Your task to perform on an android device: open sync settings in chrome Image 0: 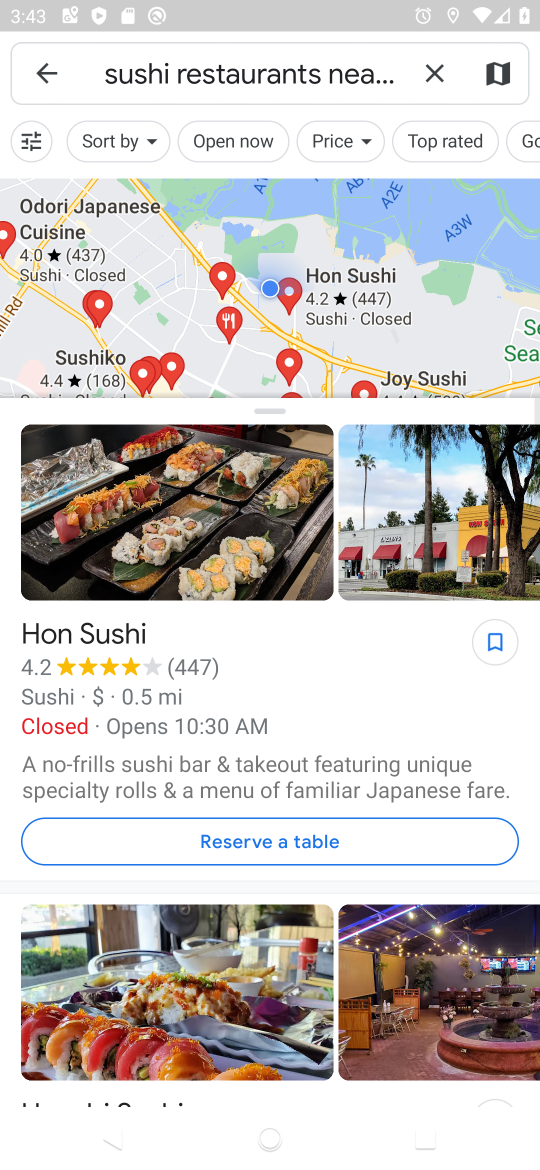
Step 0: press home button
Your task to perform on an android device: open sync settings in chrome Image 1: 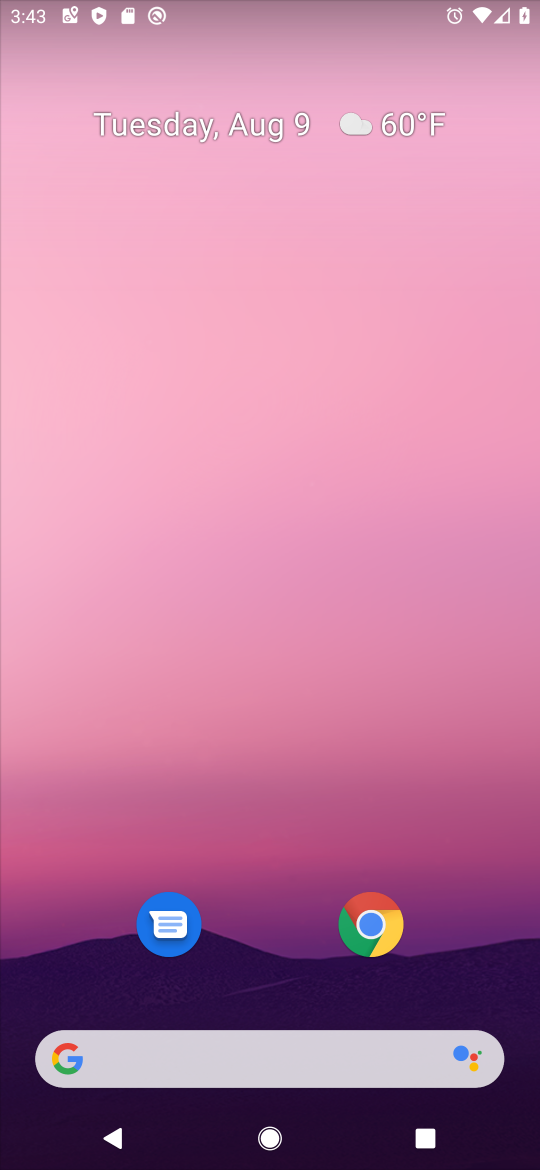
Step 1: click (375, 930)
Your task to perform on an android device: open sync settings in chrome Image 2: 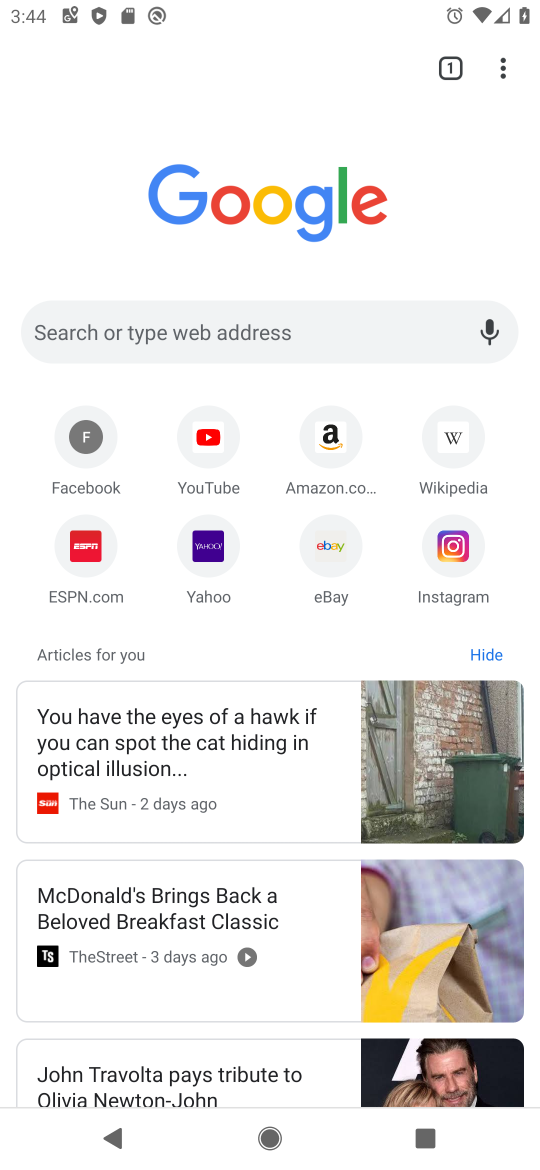
Step 2: click (501, 64)
Your task to perform on an android device: open sync settings in chrome Image 3: 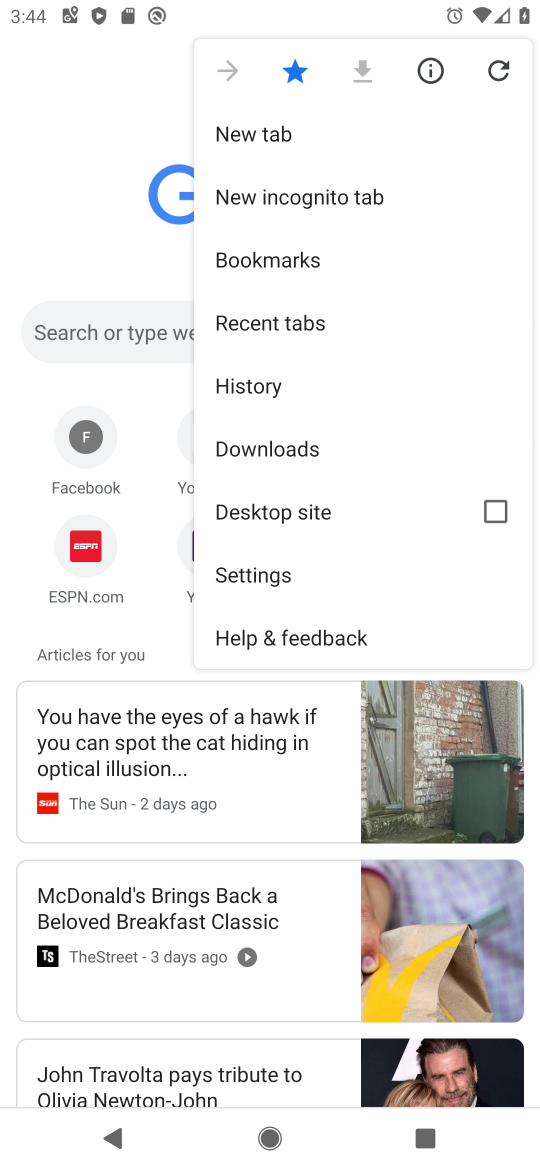
Step 3: click (280, 577)
Your task to perform on an android device: open sync settings in chrome Image 4: 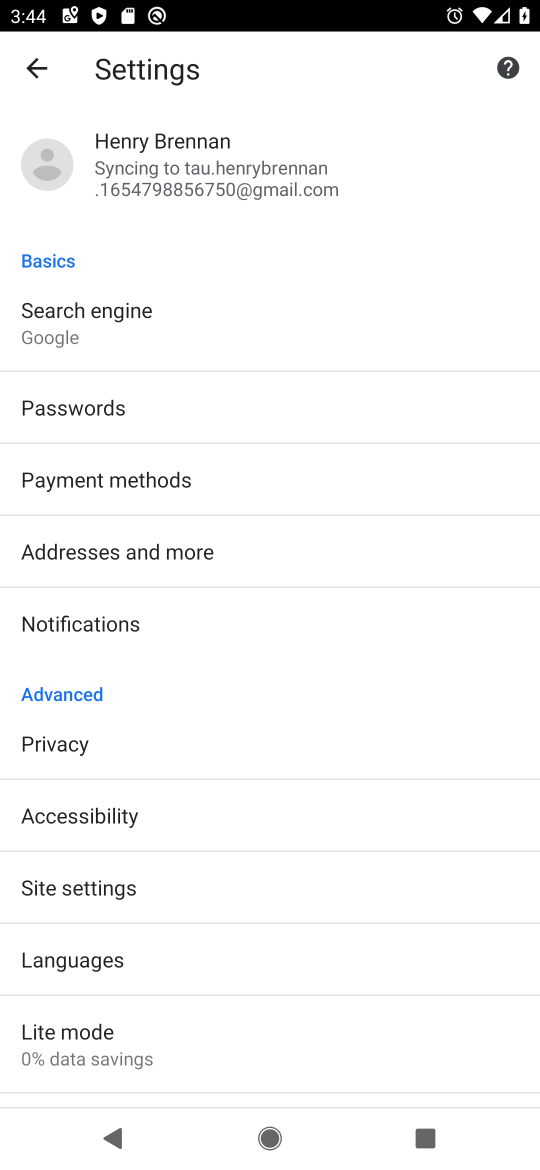
Step 4: click (242, 171)
Your task to perform on an android device: open sync settings in chrome Image 5: 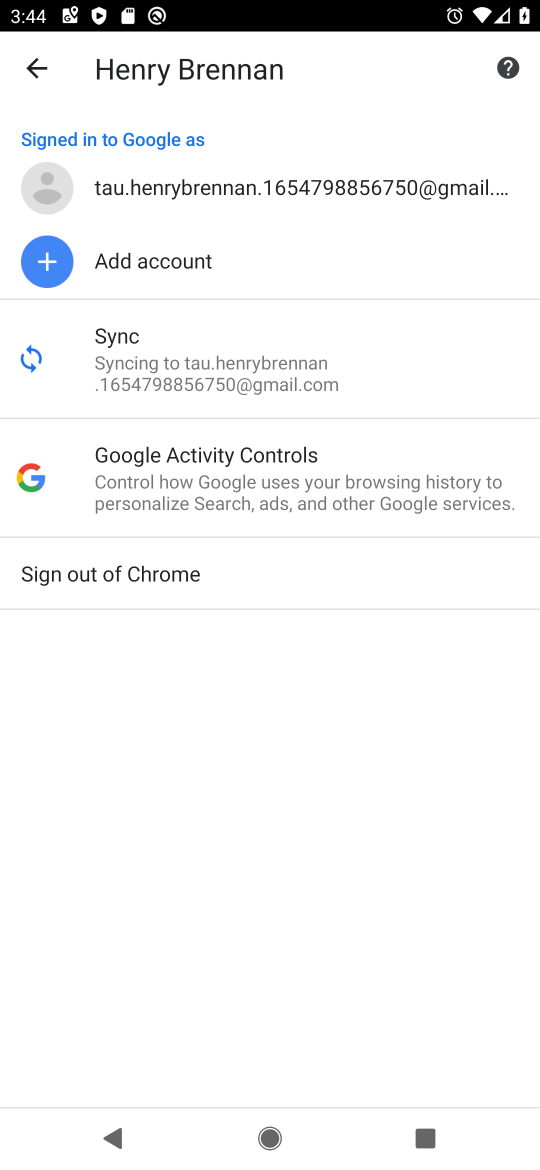
Step 5: click (243, 361)
Your task to perform on an android device: open sync settings in chrome Image 6: 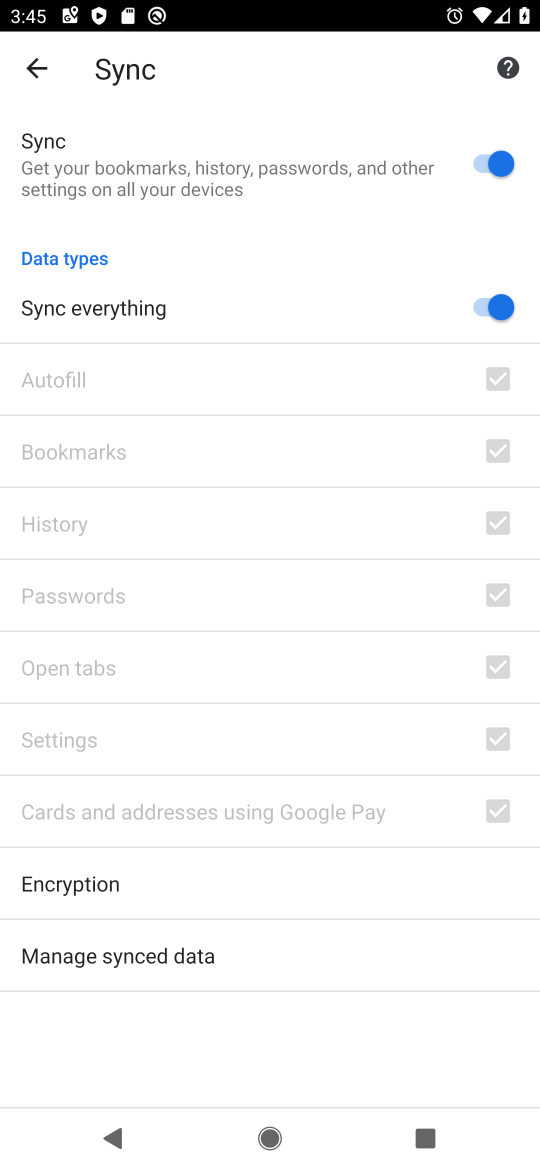
Step 6: task complete